Your task to perform on an android device: Open calendar and show me the second week of next month Image 0: 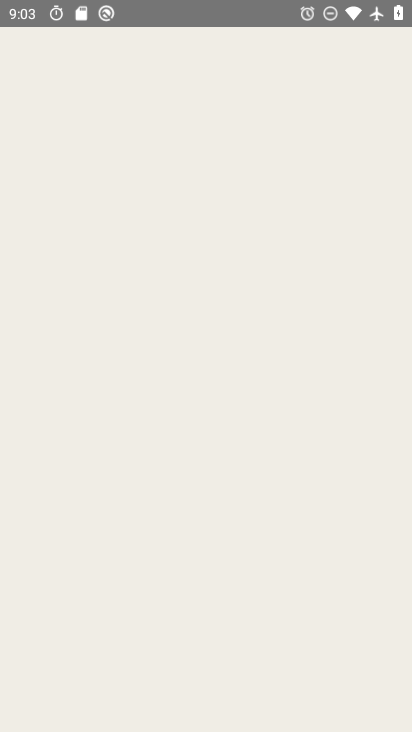
Step 0: press home button
Your task to perform on an android device: Open calendar and show me the second week of next month Image 1: 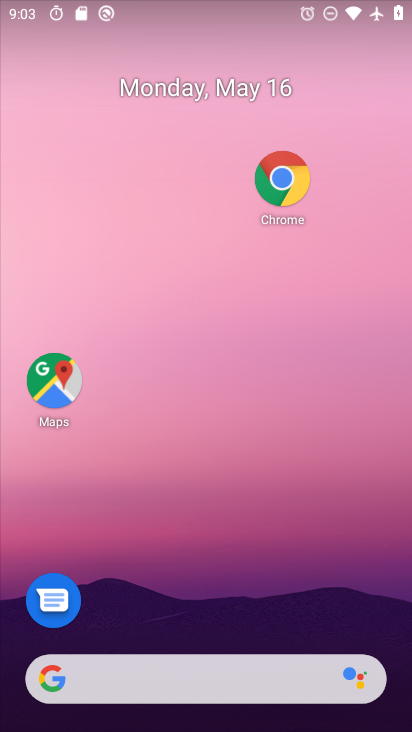
Step 1: drag from (184, 665) to (248, 95)
Your task to perform on an android device: Open calendar and show me the second week of next month Image 2: 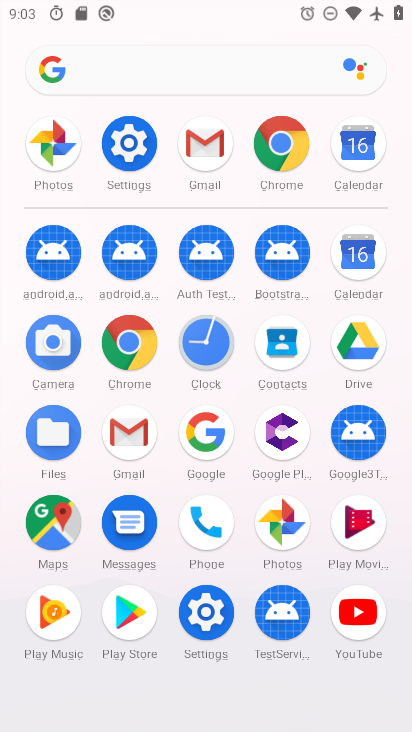
Step 2: click (364, 263)
Your task to perform on an android device: Open calendar and show me the second week of next month Image 3: 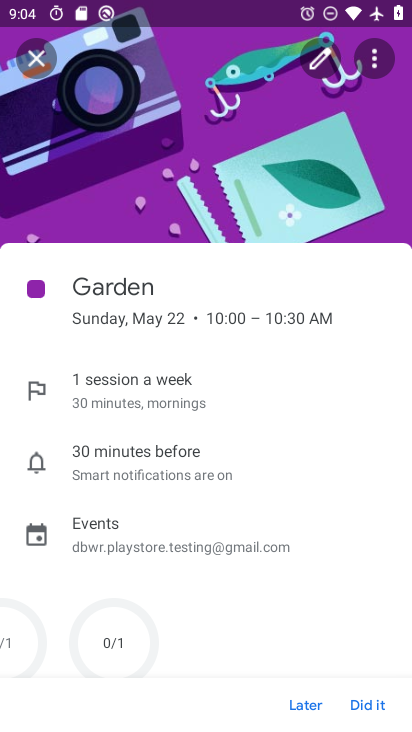
Step 3: click (39, 59)
Your task to perform on an android device: Open calendar and show me the second week of next month Image 4: 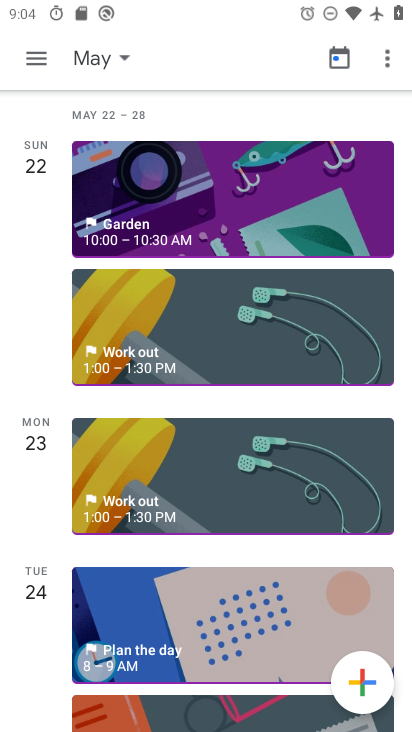
Step 4: click (87, 62)
Your task to perform on an android device: Open calendar and show me the second week of next month Image 5: 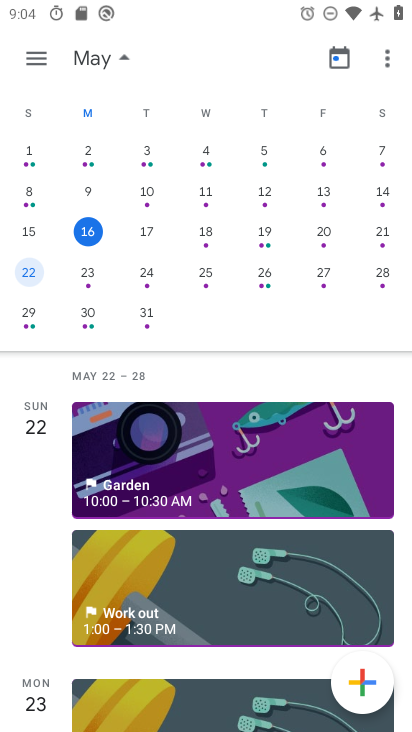
Step 5: click (344, 61)
Your task to perform on an android device: Open calendar and show me the second week of next month Image 6: 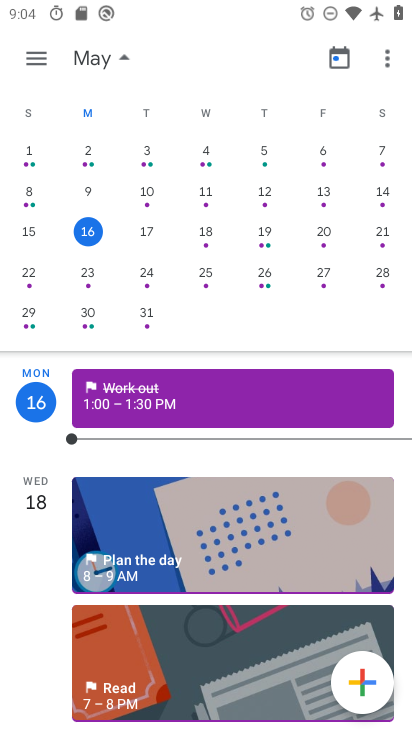
Step 6: click (336, 57)
Your task to perform on an android device: Open calendar and show me the second week of next month Image 7: 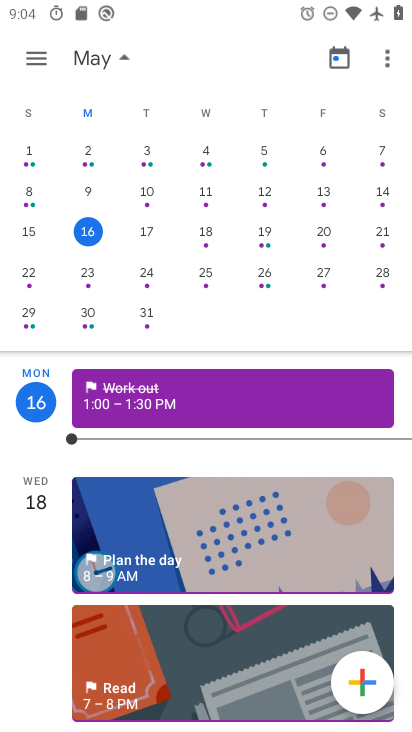
Step 7: drag from (340, 217) to (43, 202)
Your task to perform on an android device: Open calendar and show me the second week of next month Image 8: 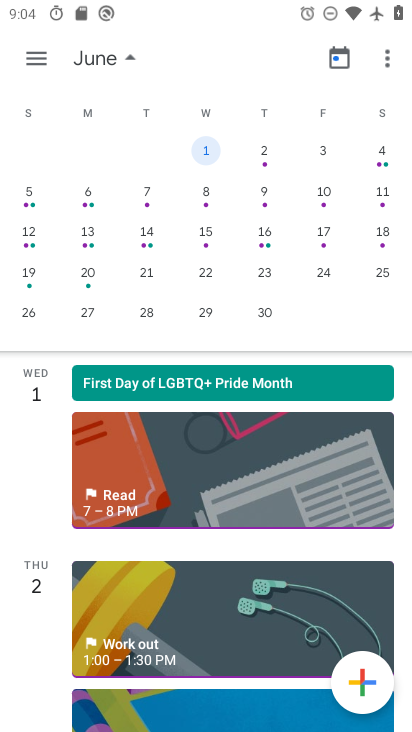
Step 8: click (30, 198)
Your task to perform on an android device: Open calendar and show me the second week of next month Image 9: 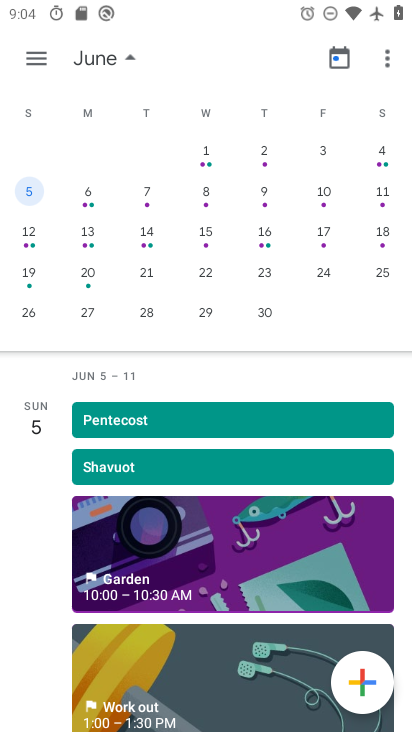
Step 9: click (41, 55)
Your task to perform on an android device: Open calendar and show me the second week of next month Image 10: 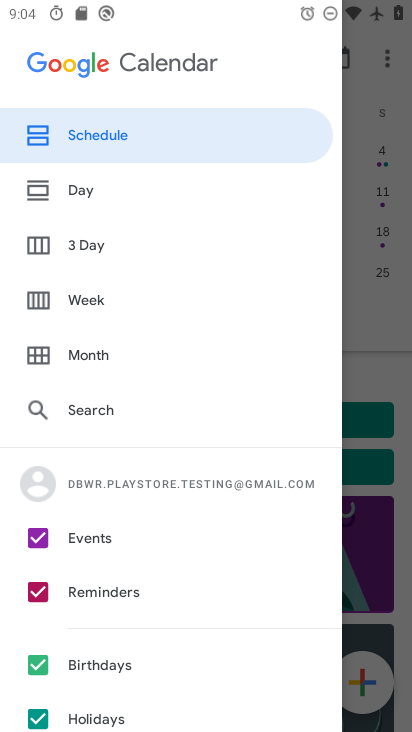
Step 10: click (108, 300)
Your task to perform on an android device: Open calendar and show me the second week of next month Image 11: 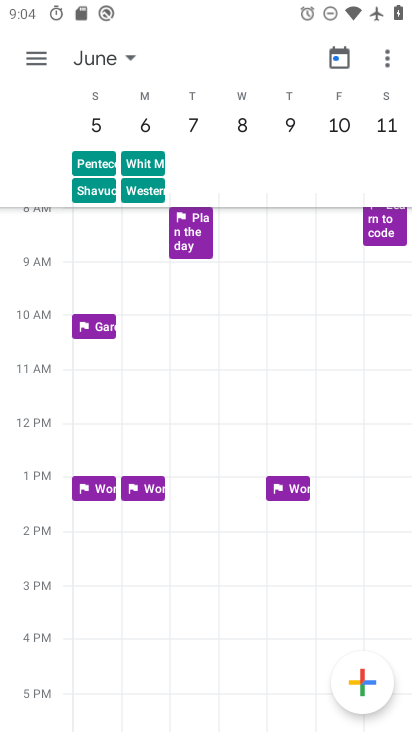
Step 11: task complete